Your task to perform on an android device: Set the phone to "Do not disturb". Image 0: 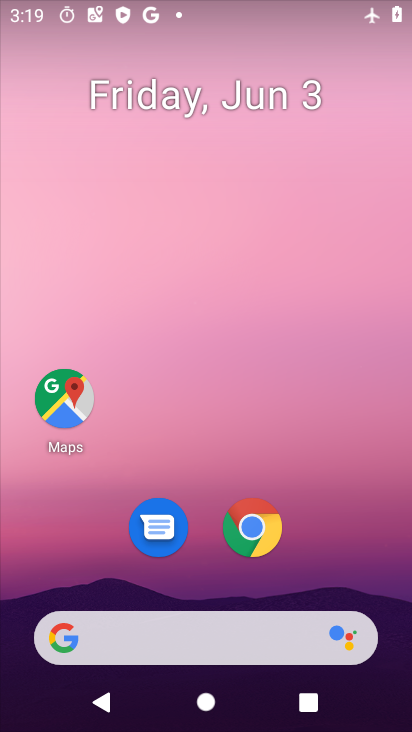
Step 0: drag from (248, 26) to (198, 530)
Your task to perform on an android device: Set the phone to "Do not disturb". Image 1: 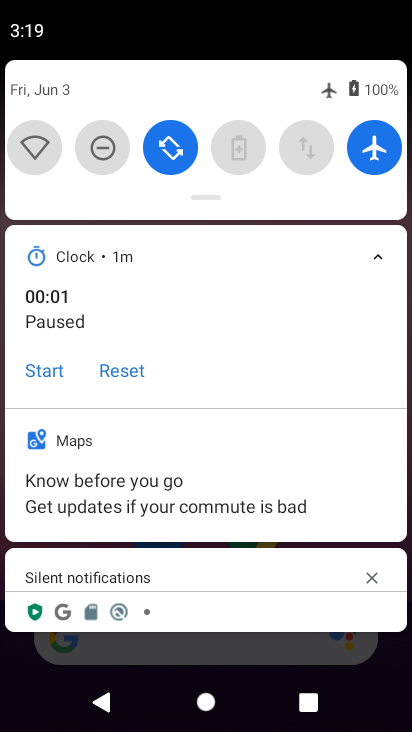
Step 1: click (102, 145)
Your task to perform on an android device: Set the phone to "Do not disturb". Image 2: 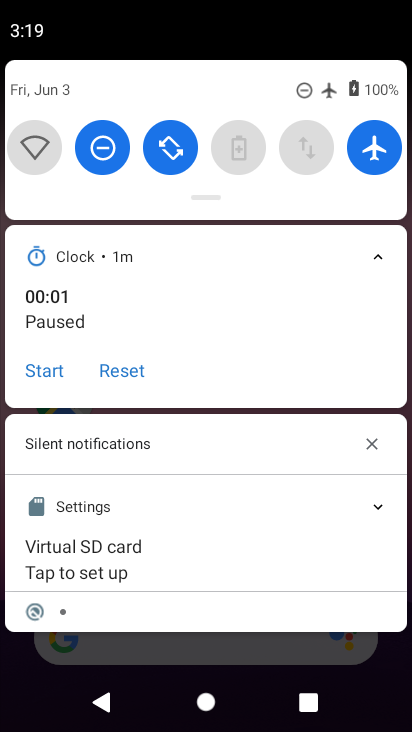
Step 2: click (102, 144)
Your task to perform on an android device: Set the phone to "Do not disturb". Image 3: 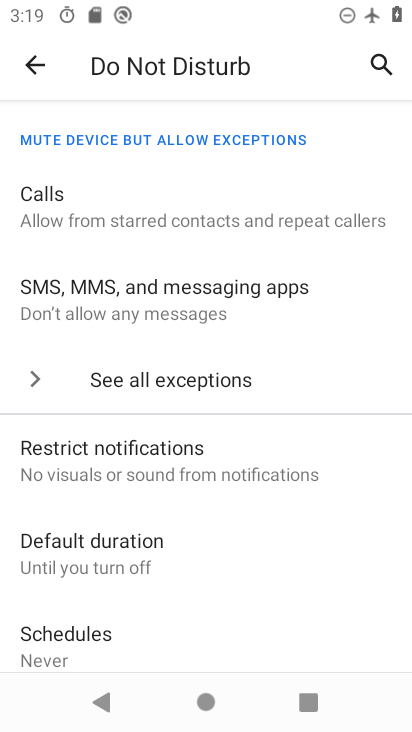
Step 3: task complete